Your task to perform on an android device: change text size in settings app Image 0: 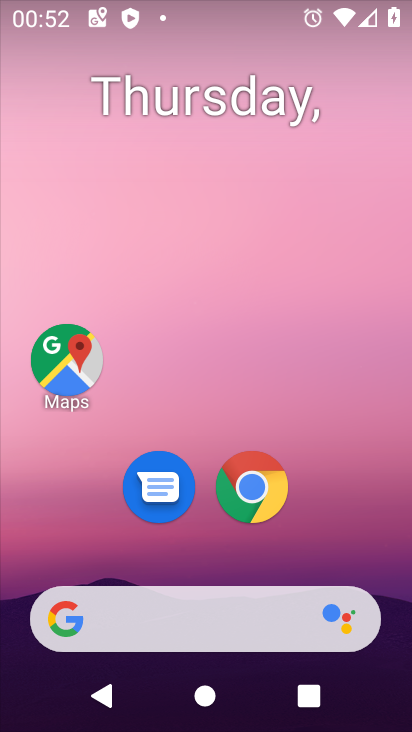
Step 0: drag from (349, 513) to (320, 0)
Your task to perform on an android device: change text size in settings app Image 1: 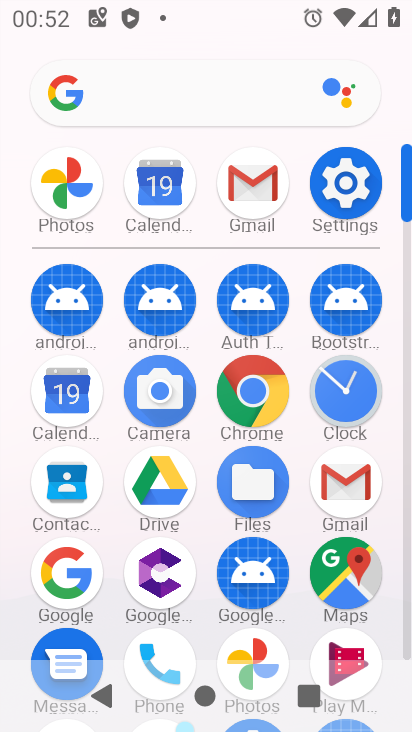
Step 1: click (343, 203)
Your task to perform on an android device: change text size in settings app Image 2: 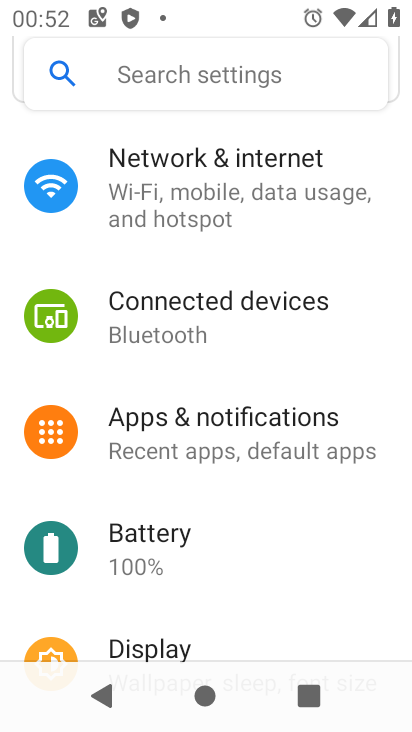
Step 2: click (161, 649)
Your task to perform on an android device: change text size in settings app Image 3: 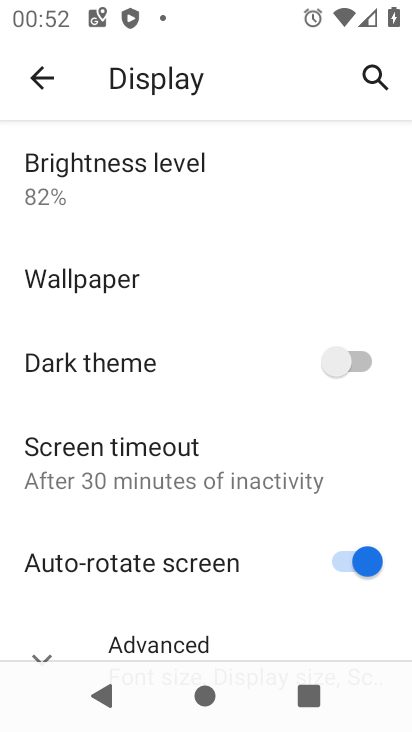
Step 3: drag from (142, 542) to (115, 217)
Your task to perform on an android device: change text size in settings app Image 4: 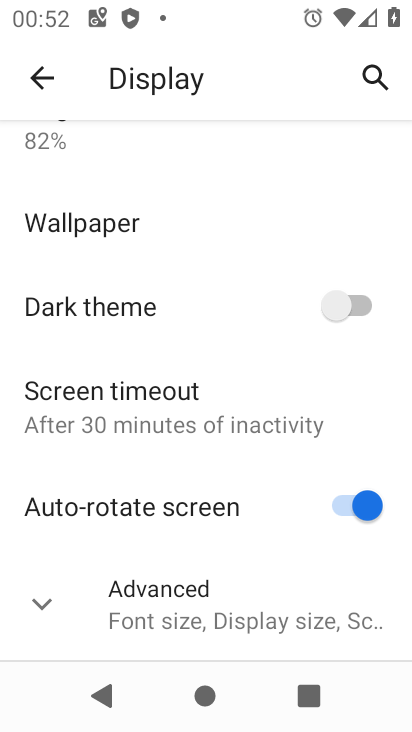
Step 4: click (49, 616)
Your task to perform on an android device: change text size in settings app Image 5: 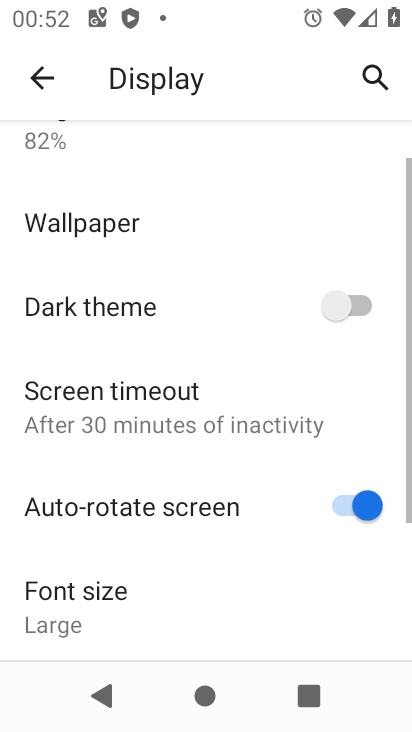
Step 5: click (49, 616)
Your task to perform on an android device: change text size in settings app Image 6: 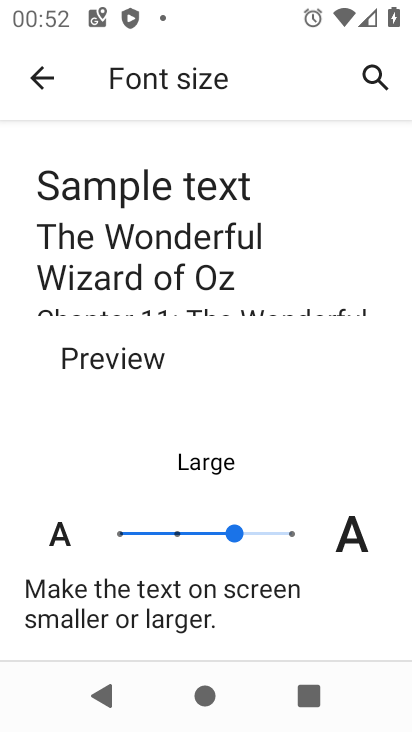
Step 6: click (176, 527)
Your task to perform on an android device: change text size in settings app Image 7: 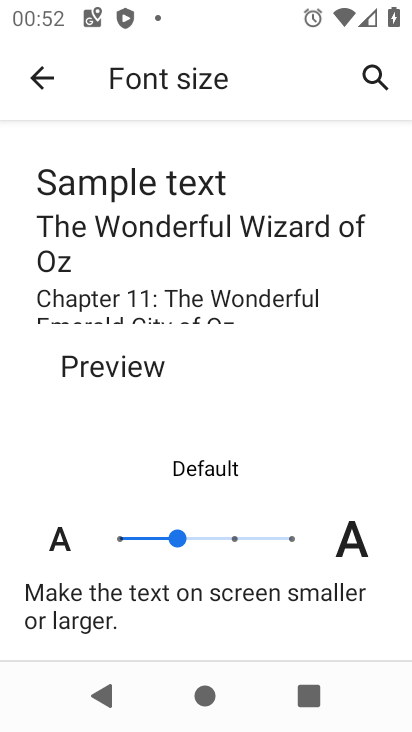
Step 7: task complete